Your task to perform on an android device: toggle notification dots Image 0: 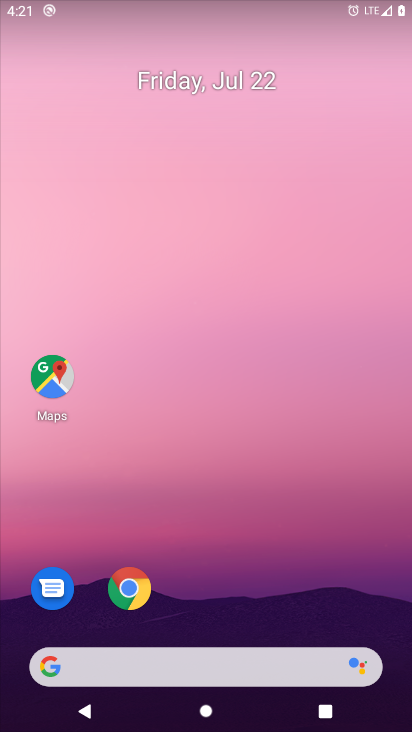
Step 0: drag from (260, 569) to (284, 147)
Your task to perform on an android device: toggle notification dots Image 1: 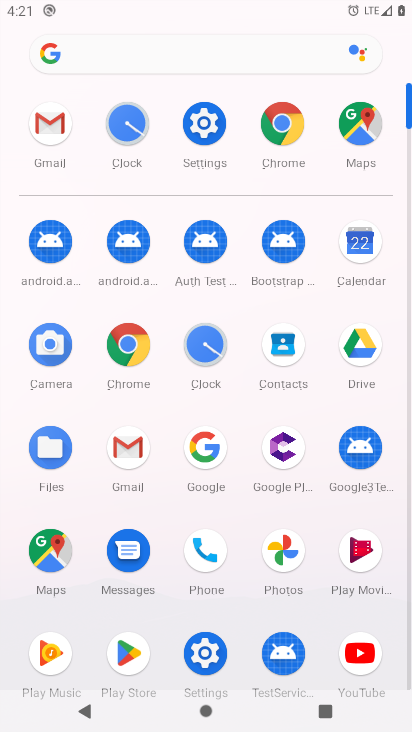
Step 1: click (204, 653)
Your task to perform on an android device: toggle notification dots Image 2: 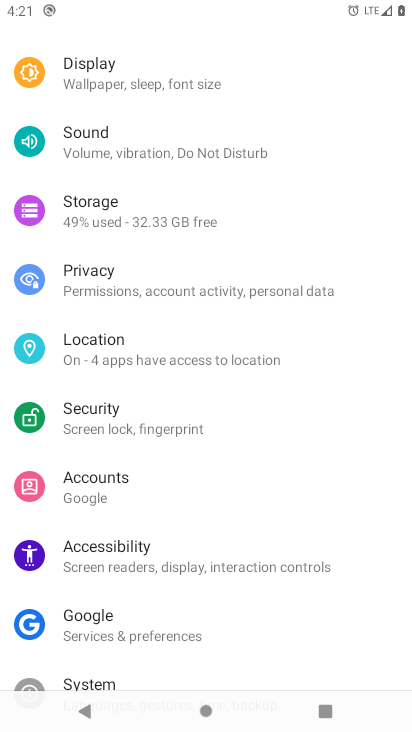
Step 2: drag from (162, 617) to (175, 649)
Your task to perform on an android device: toggle notification dots Image 3: 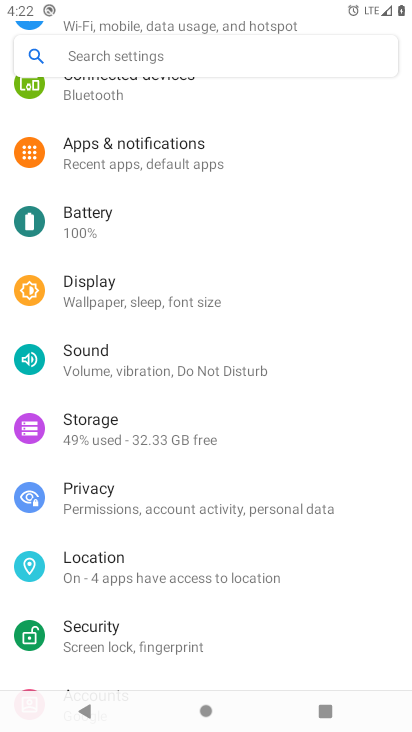
Step 3: click (138, 147)
Your task to perform on an android device: toggle notification dots Image 4: 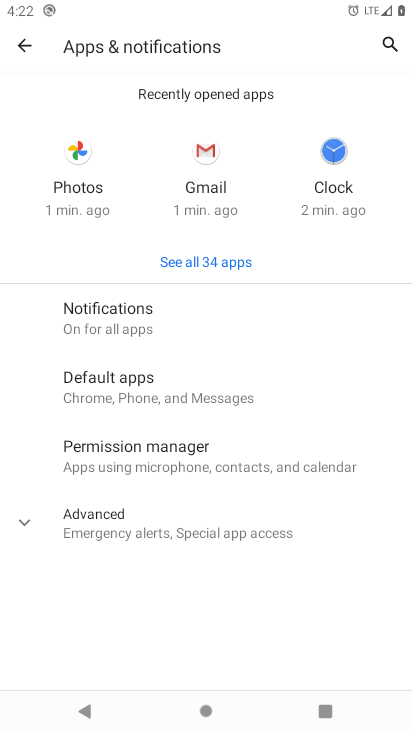
Step 4: click (140, 318)
Your task to perform on an android device: toggle notification dots Image 5: 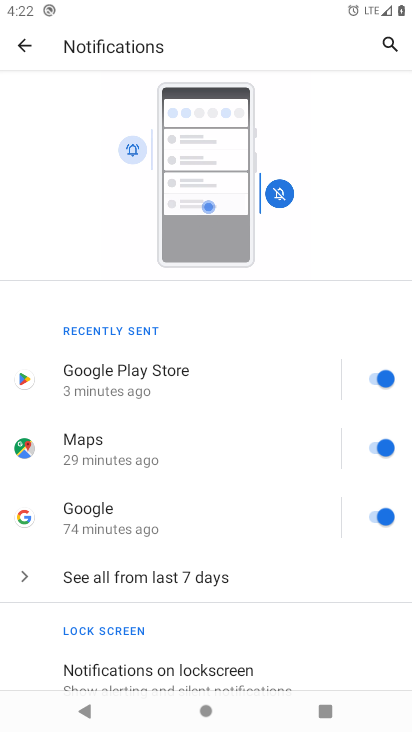
Step 5: drag from (278, 611) to (259, 284)
Your task to perform on an android device: toggle notification dots Image 6: 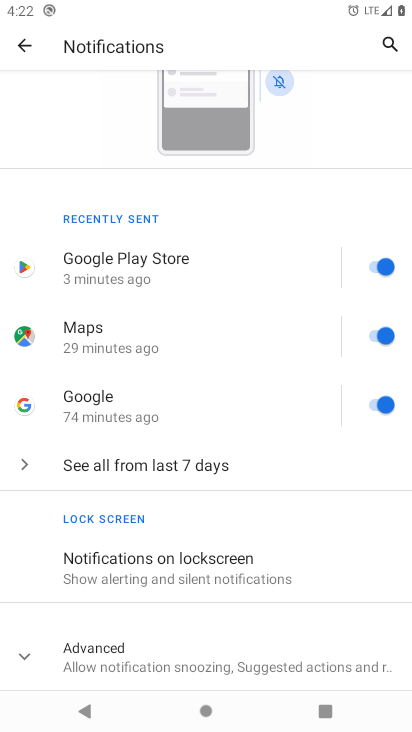
Step 6: click (136, 658)
Your task to perform on an android device: toggle notification dots Image 7: 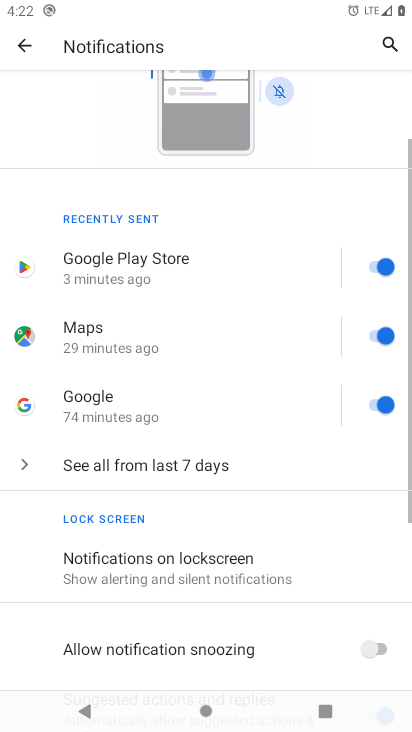
Step 7: drag from (226, 635) to (228, 366)
Your task to perform on an android device: toggle notification dots Image 8: 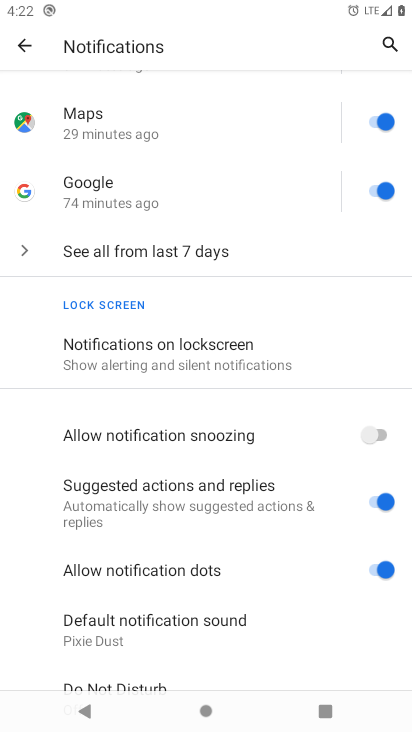
Step 8: click (313, 563)
Your task to perform on an android device: toggle notification dots Image 9: 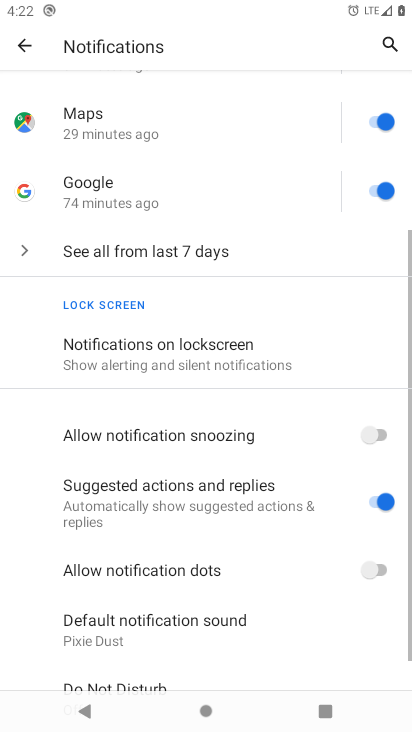
Step 9: task complete